Your task to perform on an android device: Open Youtube and go to the subscriptions tab Image 0: 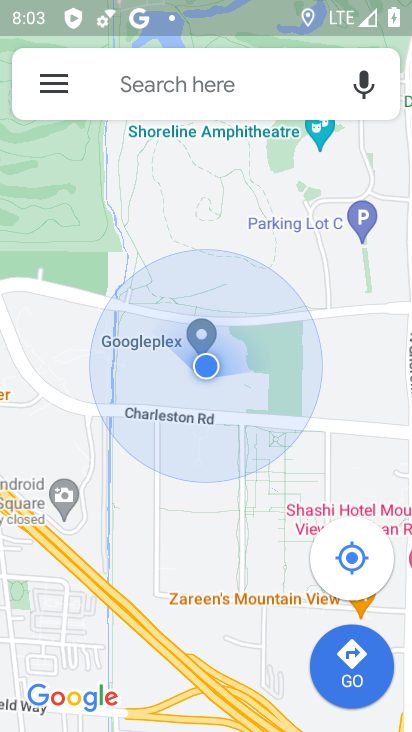
Step 0: press back button
Your task to perform on an android device: Open Youtube and go to the subscriptions tab Image 1: 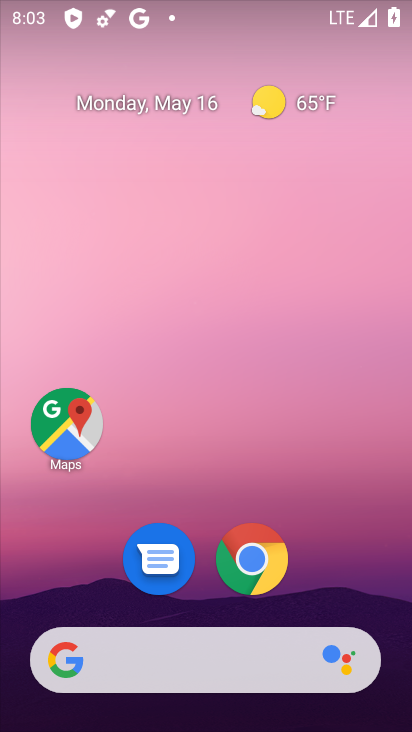
Step 1: drag from (202, 569) to (271, 64)
Your task to perform on an android device: Open Youtube and go to the subscriptions tab Image 2: 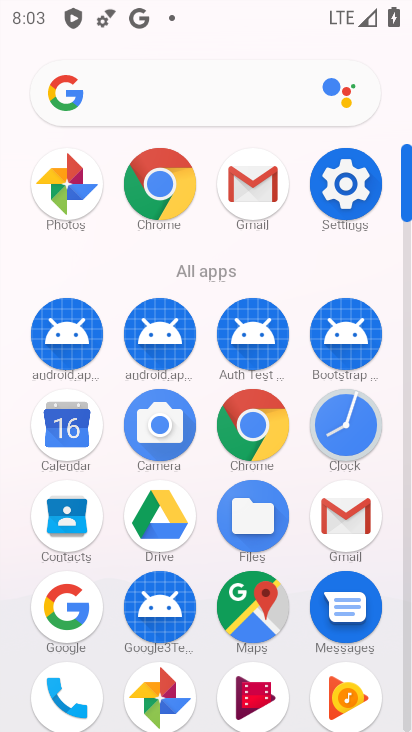
Step 2: drag from (223, 556) to (325, 132)
Your task to perform on an android device: Open Youtube and go to the subscriptions tab Image 3: 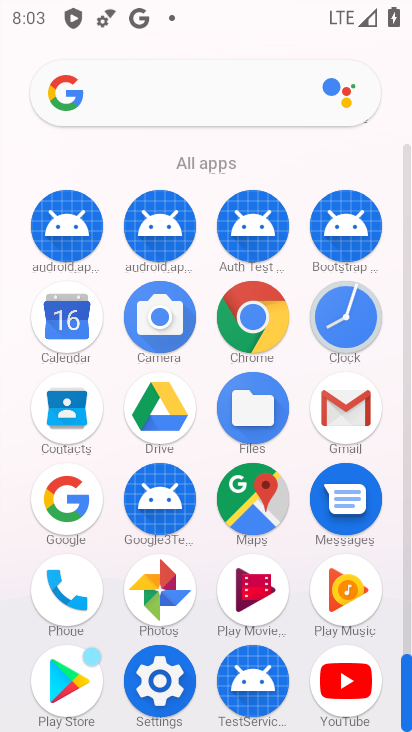
Step 3: click (347, 691)
Your task to perform on an android device: Open Youtube and go to the subscriptions tab Image 4: 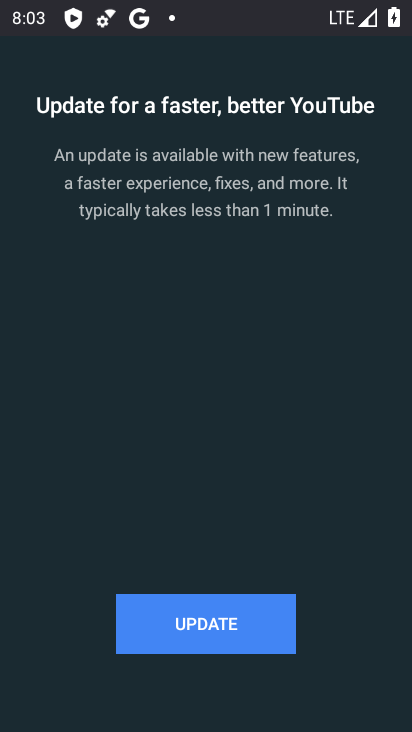
Step 4: click (188, 635)
Your task to perform on an android device: Open Youtube and go to the subscriptions tab Image 5: 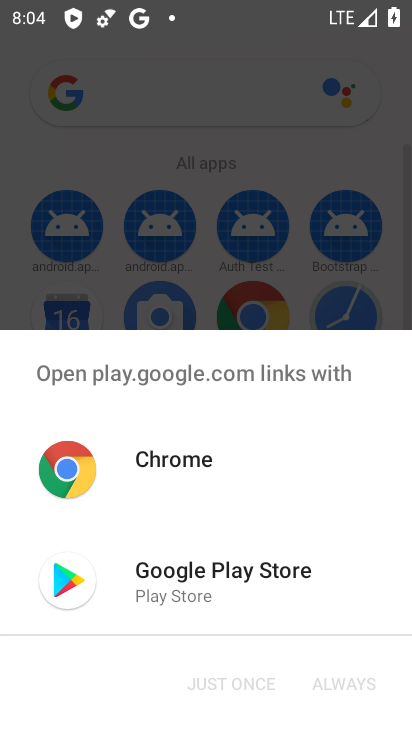
Step 5: click (194, 599)
Your task to perform on an android device: Open Youtube and go to the subscriptions tab Image 6: 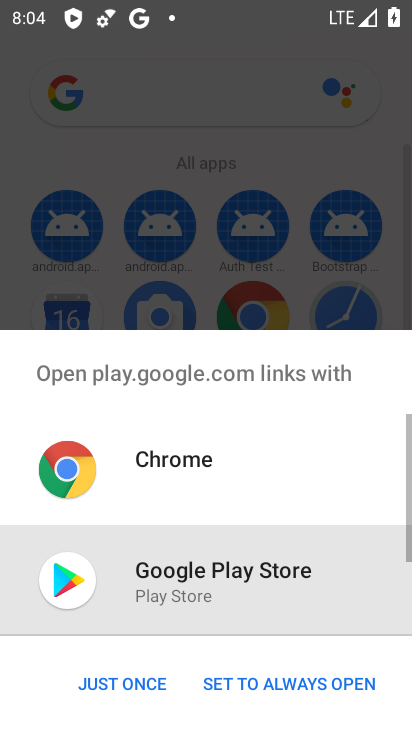
Step 6: click (71, 685)
Your task to perform on an android device: Open Youtube and go to the subscriptions tab Image 7: 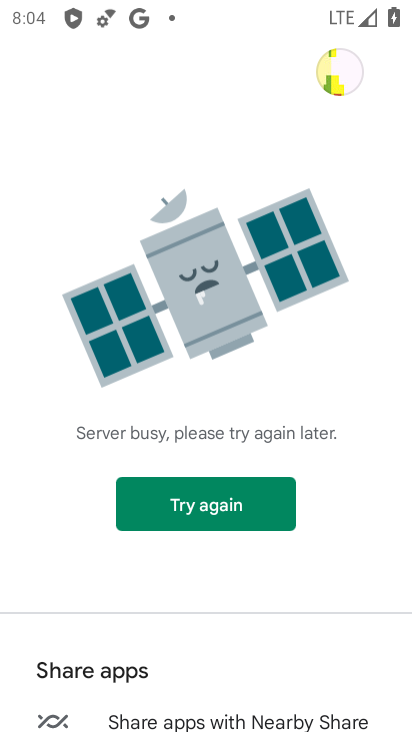
Step 7: click (251, 494)
Your task to perform on an android device: Open Youtube and go to the subscriptions tab Image 8: 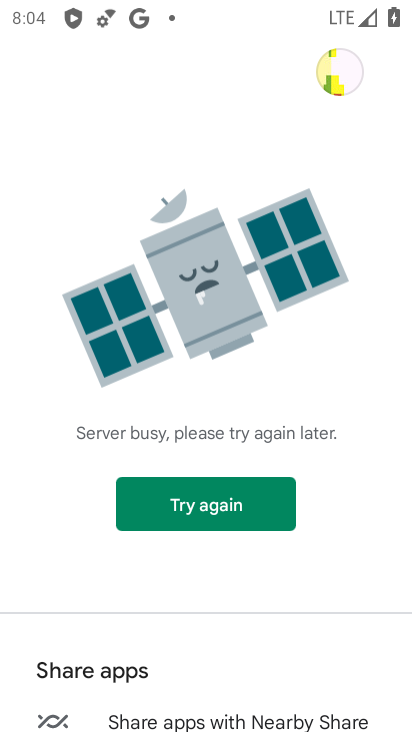
Step 8: click (248, 494)
Your task to perform on an android device: Open Youtube and go to the subscriptions tab Image 9: 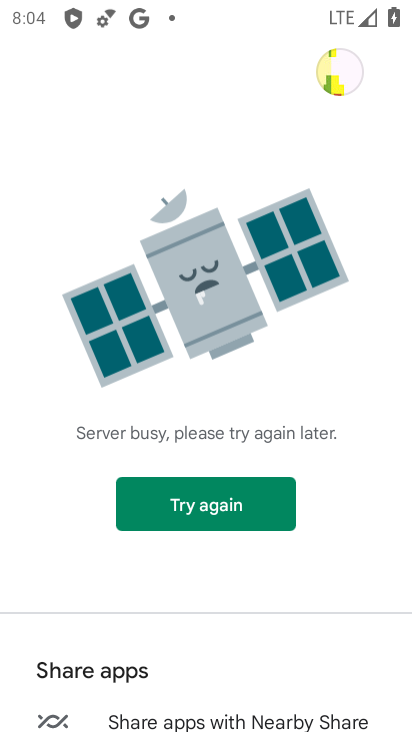
Step 9: drag from (298, 12) to (295, 431)
Your task to perform on an android device: Open Youtube and go to the subscriptions tab Image 10: 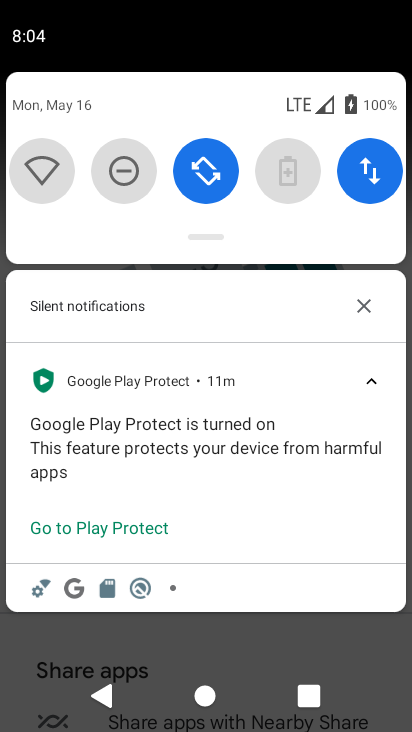
Step 10: drag from (228, 642) to (318, 110)
Your task to perform on an android device: Open Youtube and go to the subscriptions tab Image 11: 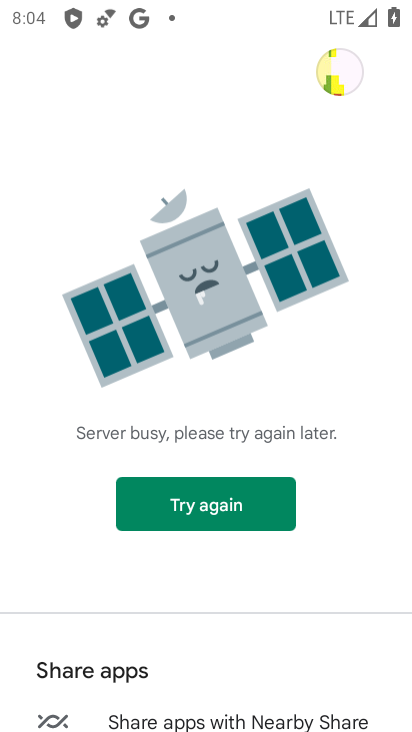
Step 11: click (197, 504)
Your task to perform on an android device: Open Youtube and go to the subscriptions tab Image 12: 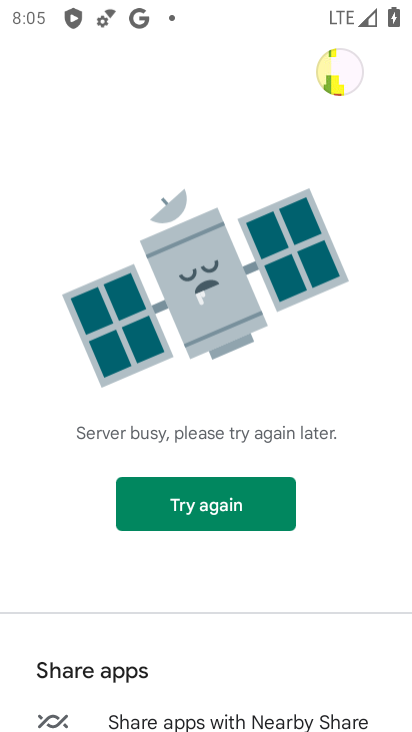
Step 12: task complete